Your task to perform on an android device: Show me the alarms in the clock app Image 0: 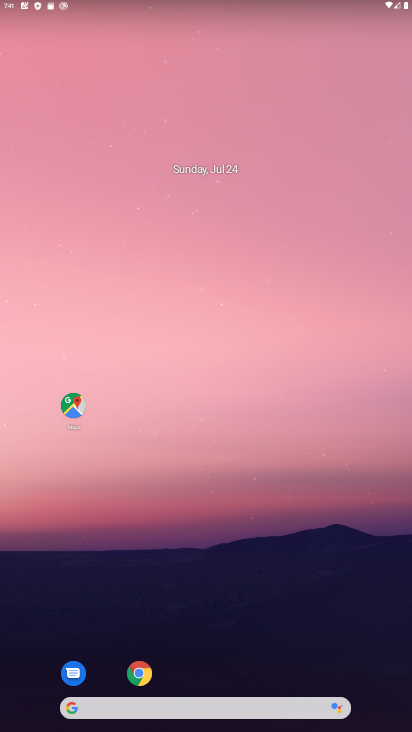
Step 0: drag from (178, 604) to (241, 161)
Your task to perform on an android device: Show me the alarms in the clock app Image 1: 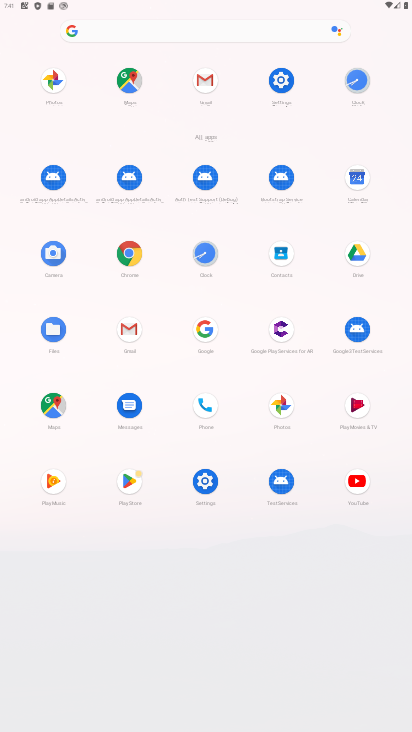
Step 1: click (193, 250)
Your task to perform on an android device: Show me the alarms in the clock app Image 2: 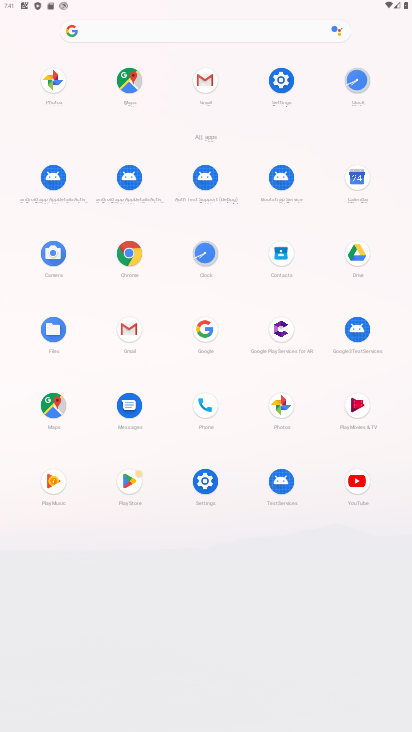
Step 2: click (193, 250)
Your task to perform on an android device: Show me the alarms in the clock app Image 3: 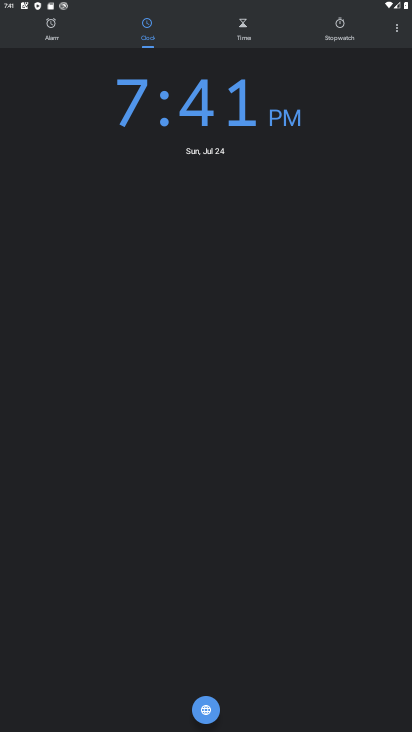
Step 3: drag from (220, 649) to (192, 226)
Your task to perform on an android device: Show me the alarms in the clock app Image 4: 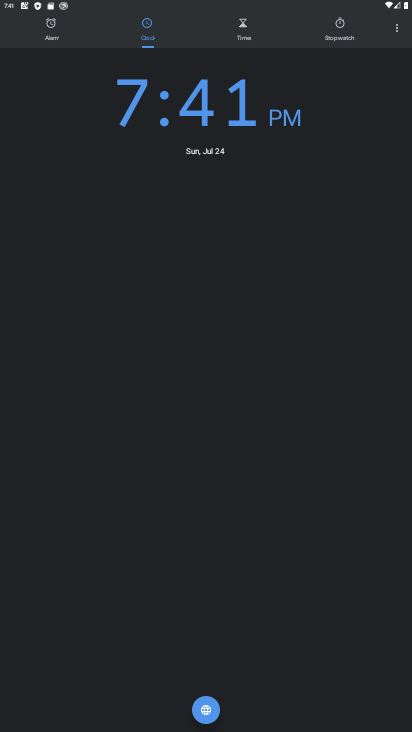
Step 4: click (60, 35)
Your task to perform on an android device: Show me the alarms in the clock app Image 5: 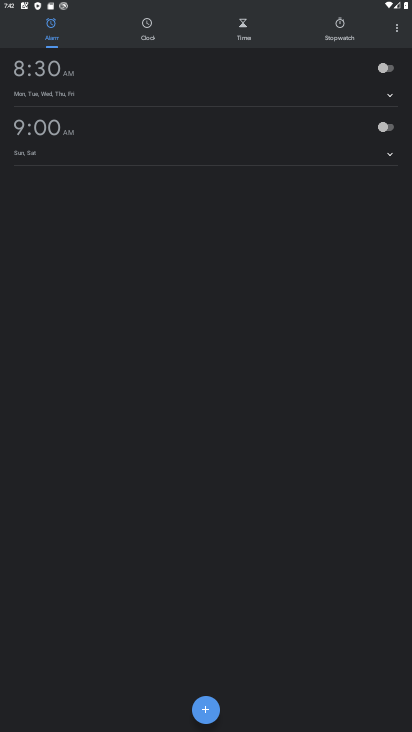
Step 5: task complete